Your task to perform on an android device: show emergency info Image 0: 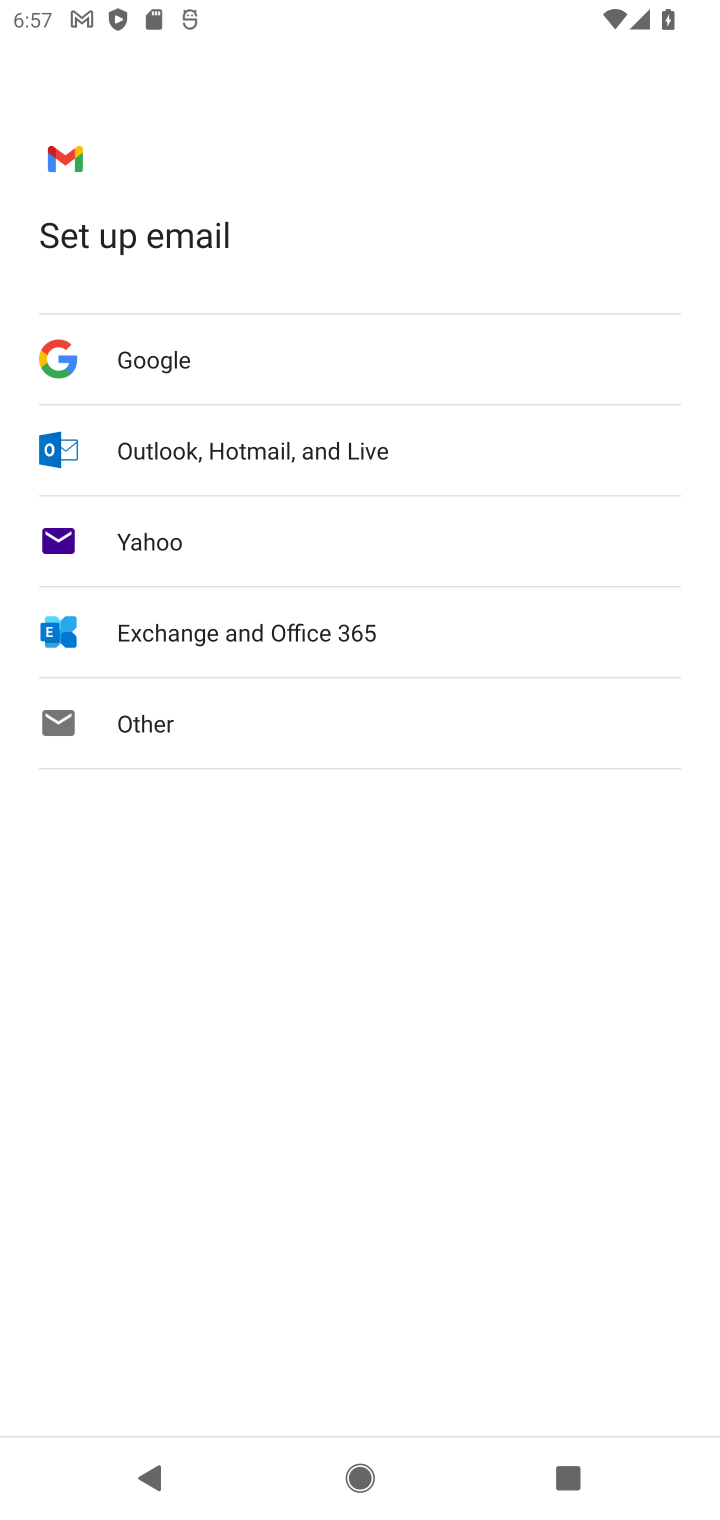
Step 0: press home button
Your task to perform on an android device: show emergency info Image 1: 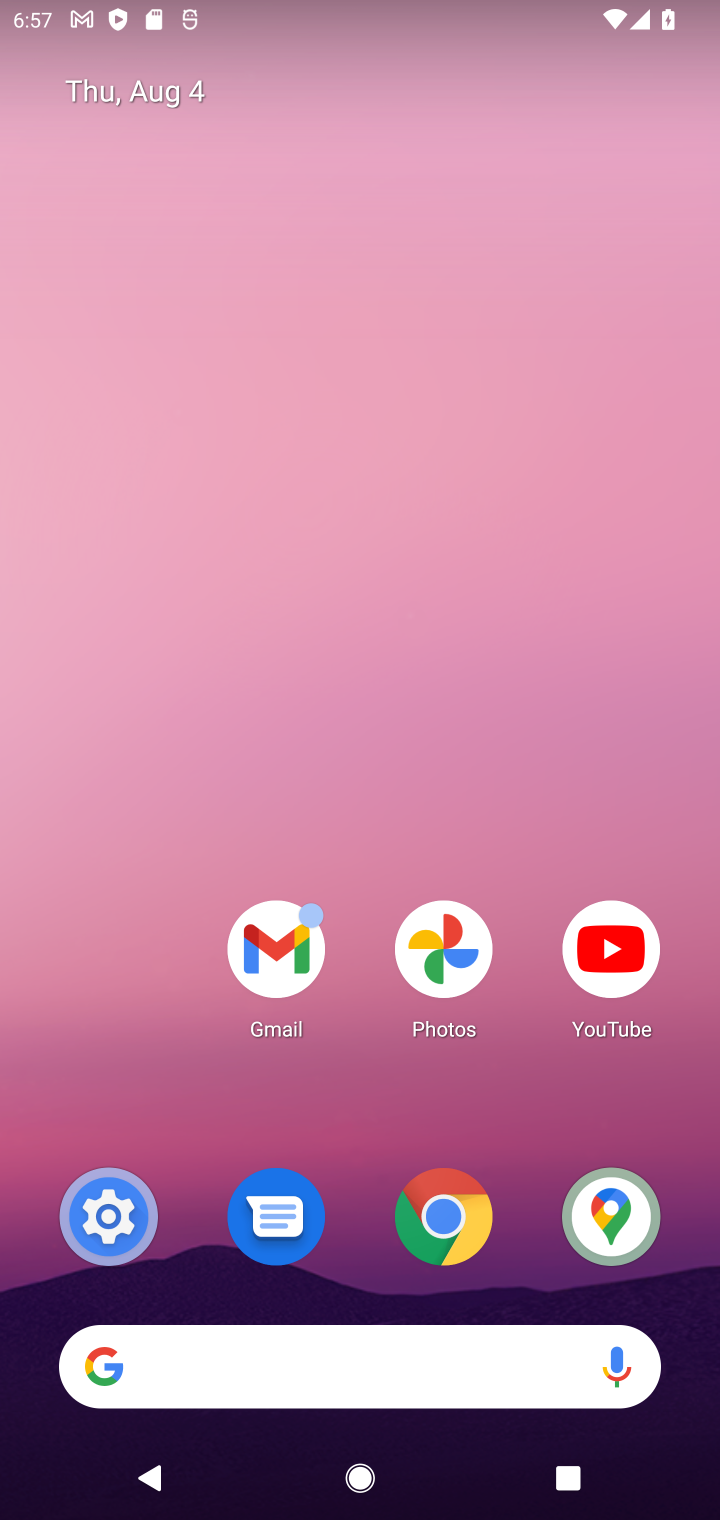
Step 1: drag from (350, 1068) to (350, 248)
Your task to perform on an android device: show emergency info Image 2: 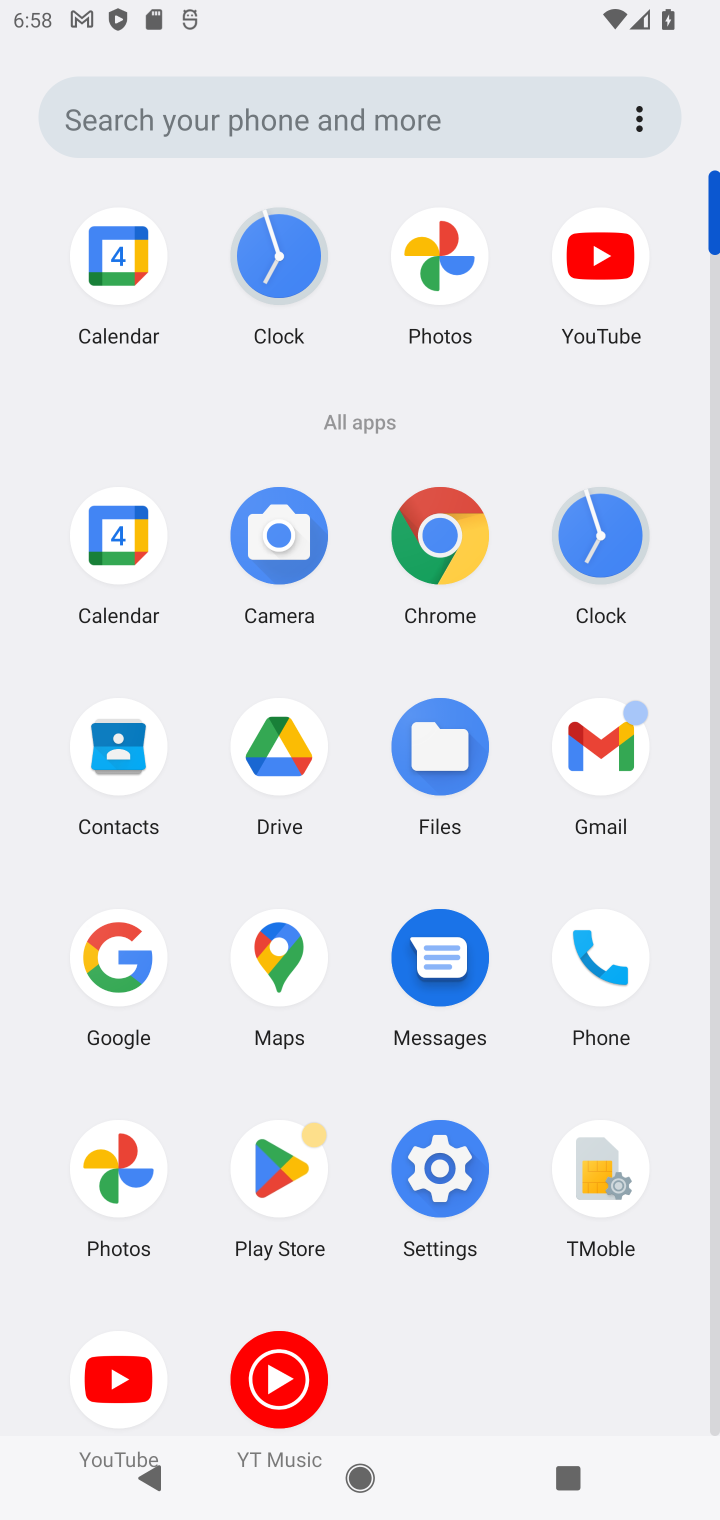
Step 2: click (444, 1173)
Your task to perform on an android device: show emergency info Image 3: 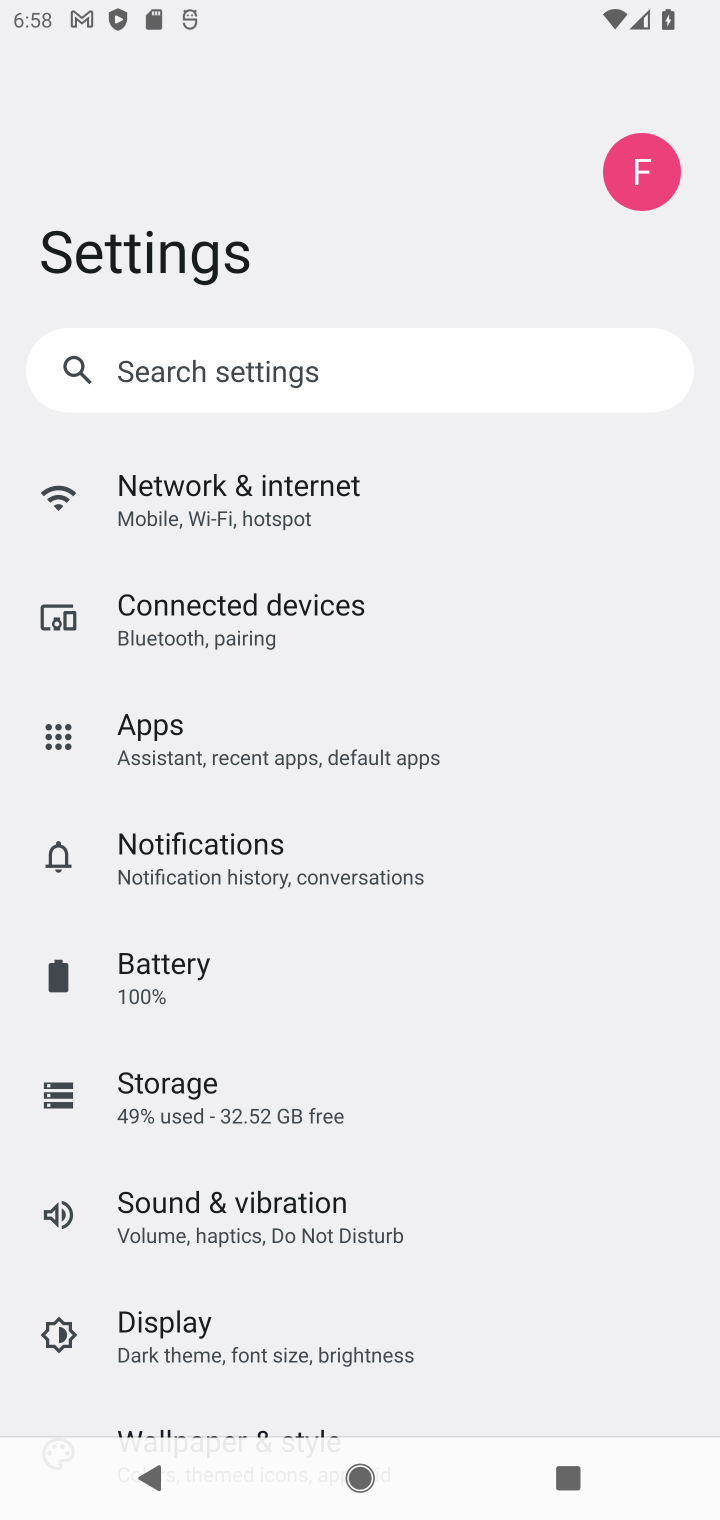
Step 3: drag from (324, 1325) to (234, 709)
Your task to perform on an android device: show emergency info Image 4: 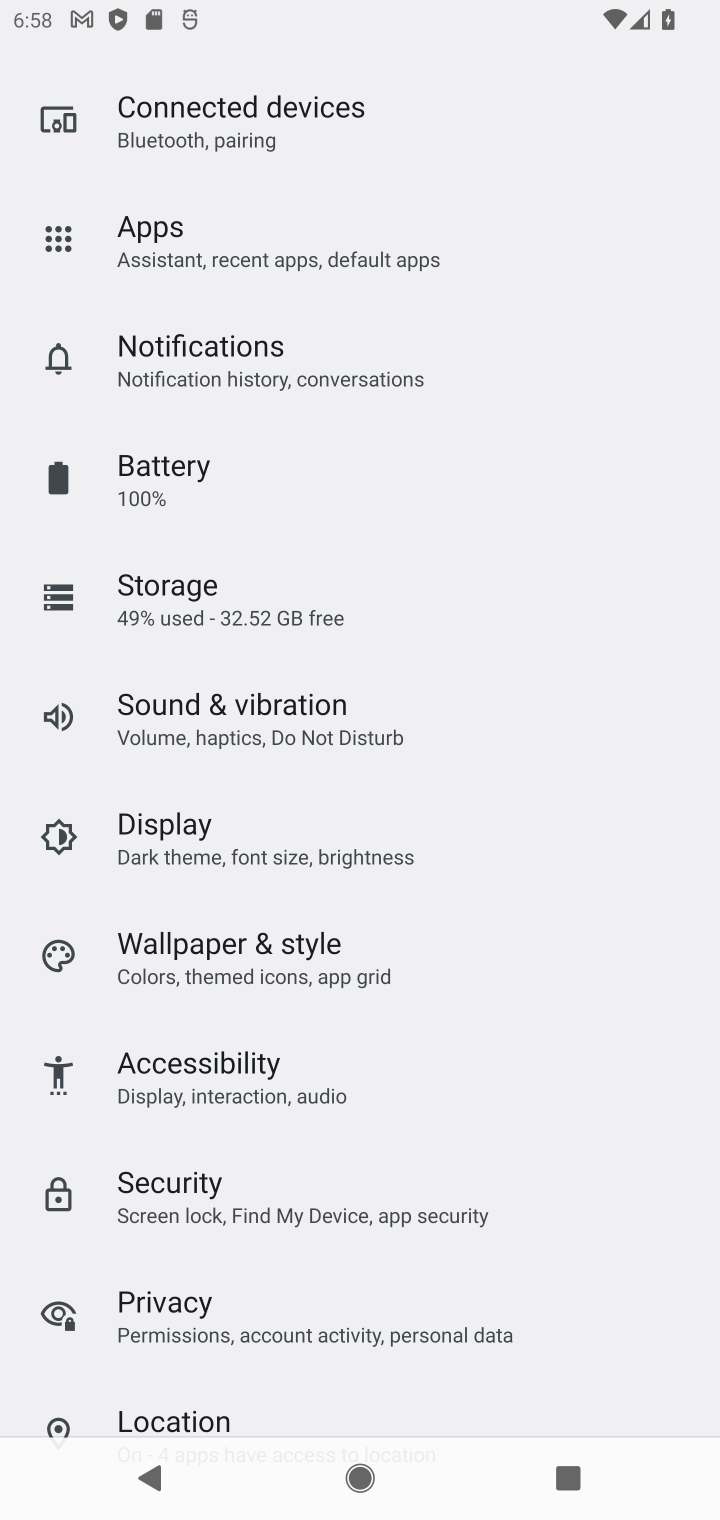
Step 4: drag from (241, 1378) to (190, 606)
Your task to perform on an android device: show emergency info Image 5: 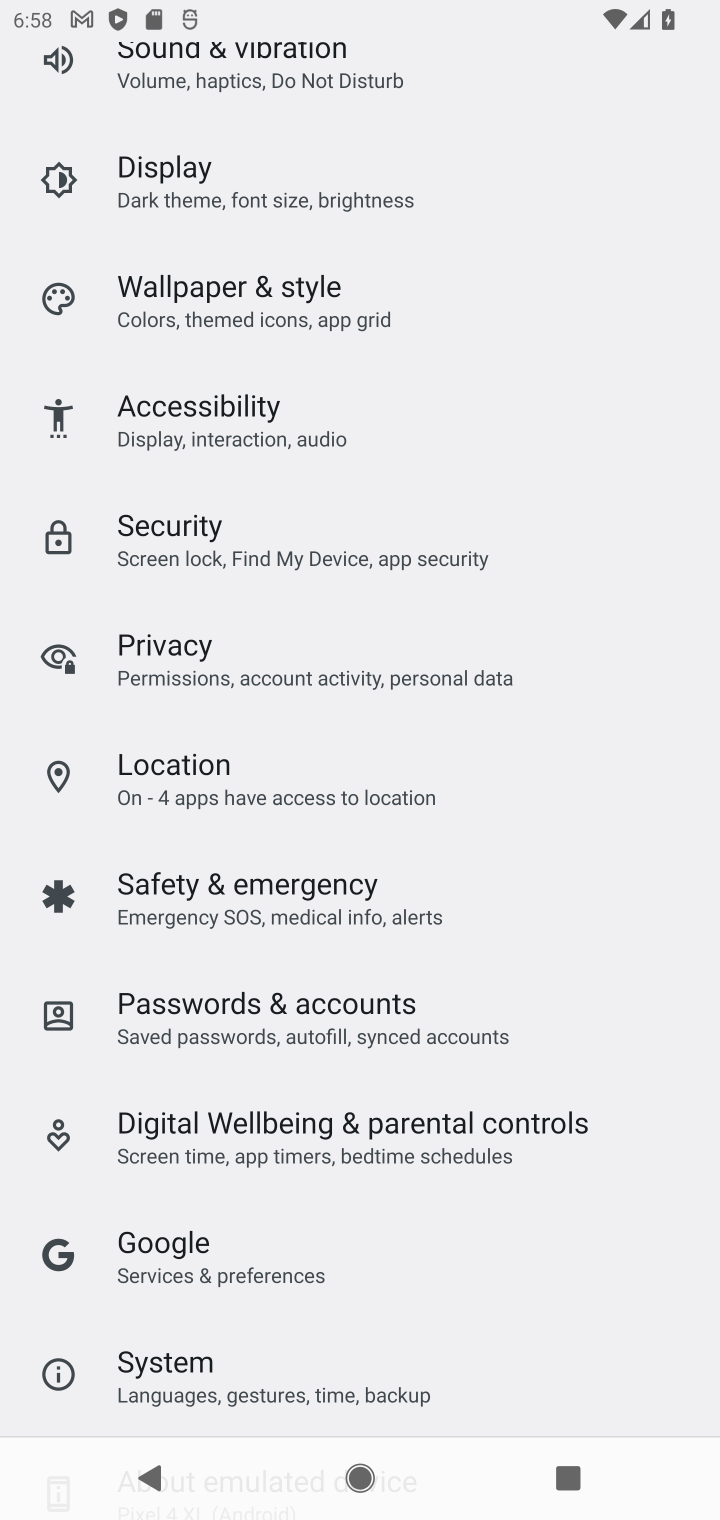
Step 5: drag from (301, 1353) to (294, 602)
Your task to perform on an android device: show emergency info Image 6: 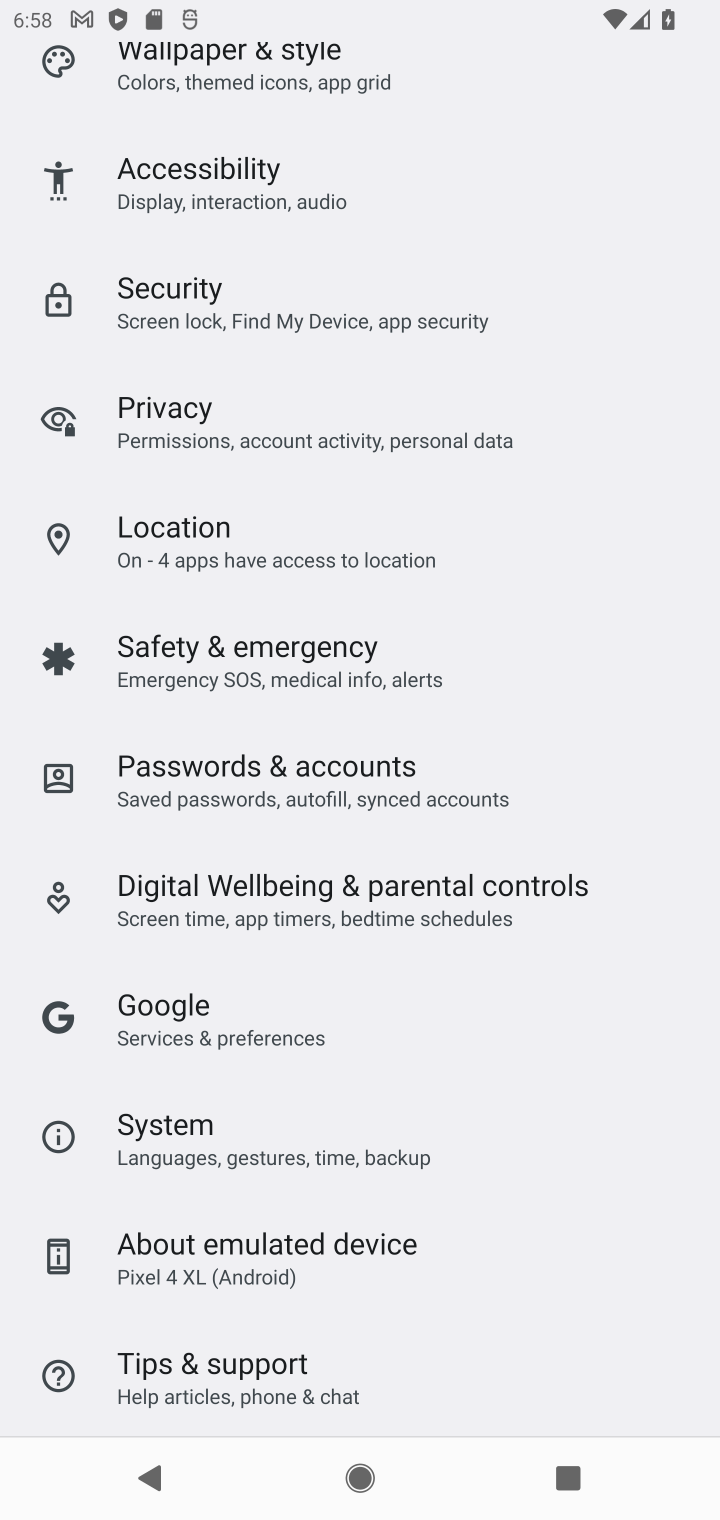
Step 6: drag from (183, 1283) to (153, 652)
Your task to perform on an android device: show emergency info Image 7: 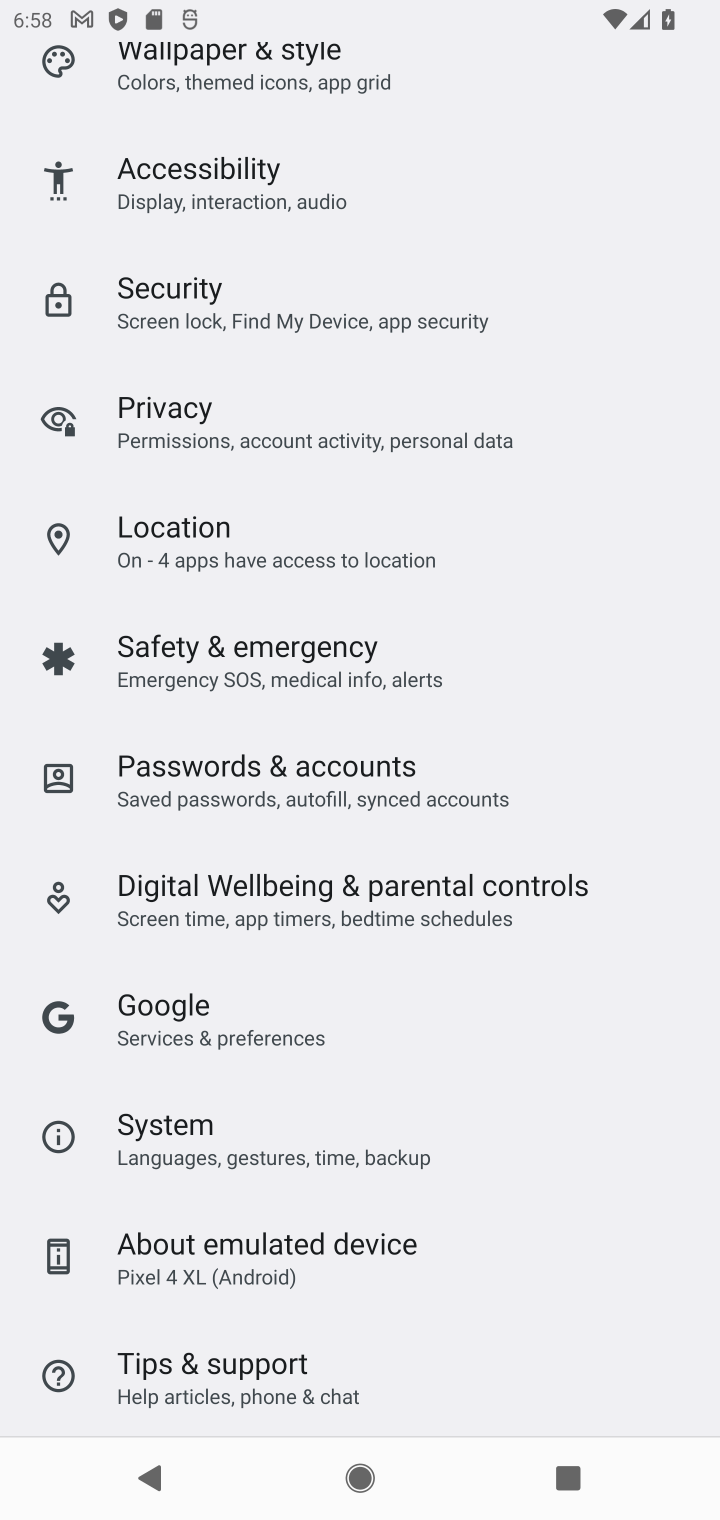
Step 7: drag from (275, 1370) to (236, 757)
Your task to perform on an android device: show emergency info Image 8: 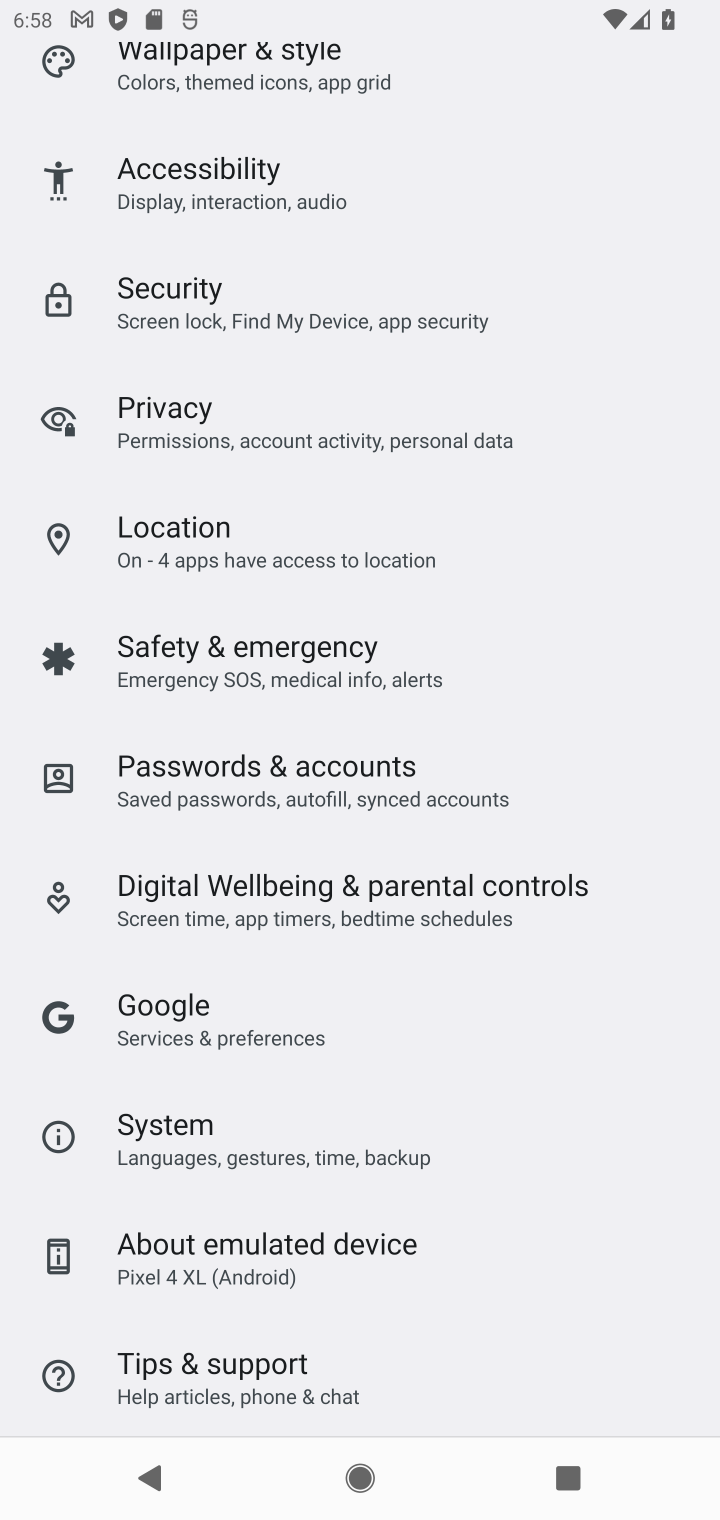
Step 8: drag from (213, 1278) to (174, 792)
Your task to perform on an android device: show emergency info Image 9: 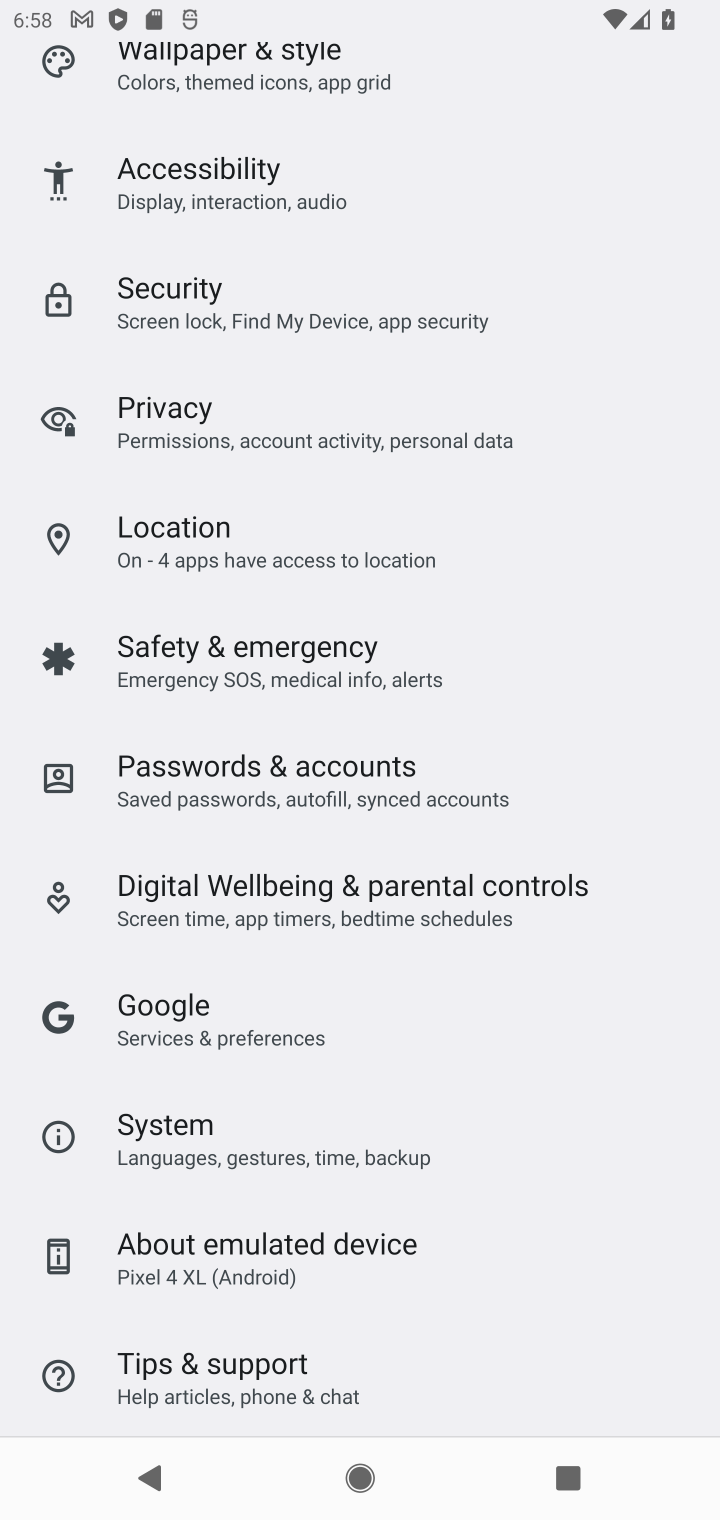
Step 9: click (256, 1246)
Your task to perform on an android device: show emergency info Image 10: 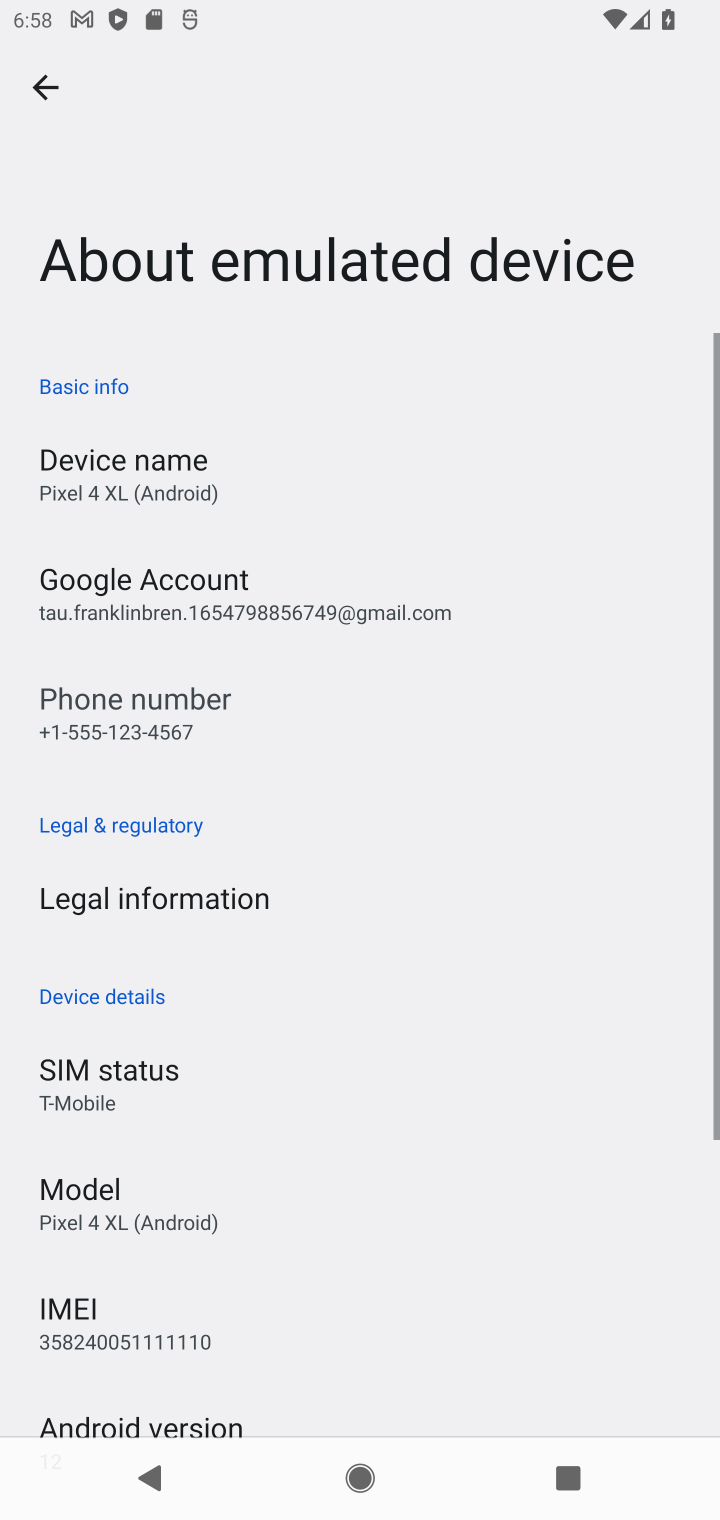
Step 10: task complete